Your task to perform on an android device: change text size in settings app Image 0: 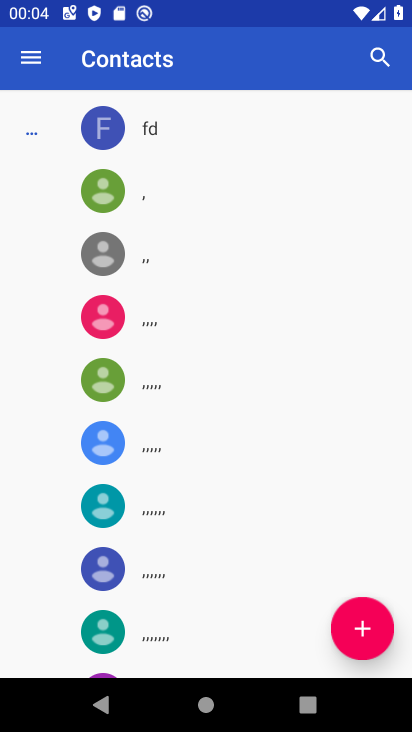
Step 0: drag from (228, 254) to (256, 63)
Your task to perform on an android device: change text size in settings app Image 1: 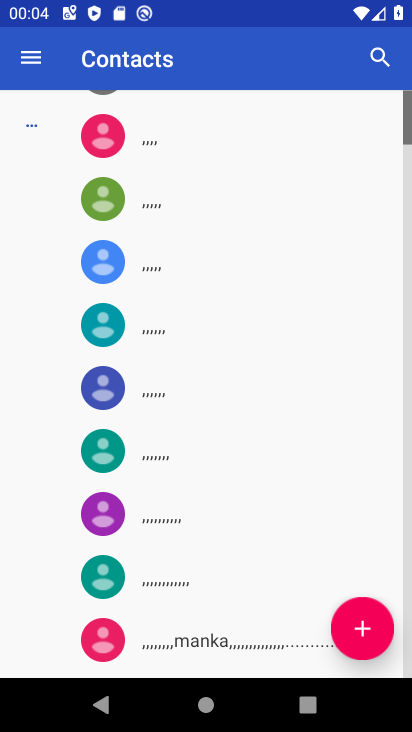
Step 1: drag from (261, 506) to (261, 158)
Your task to perform on an android device: change text size in settings app Image 2: 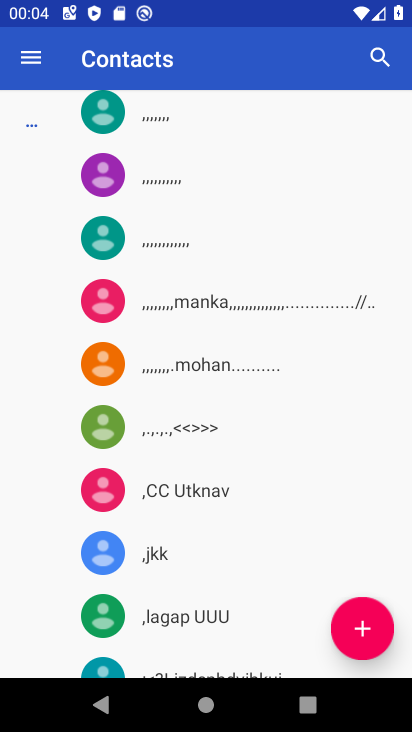
Step 2: press home button
Your task to perform on an android device: change text size in settings app Image 3: 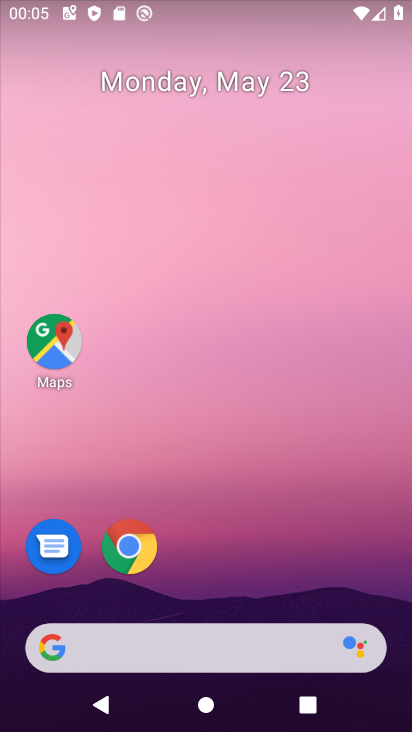
Step 3: drag from (188, 638) to (217, 80)
Your task to perform on an android device: change text size in settings app Image 4: 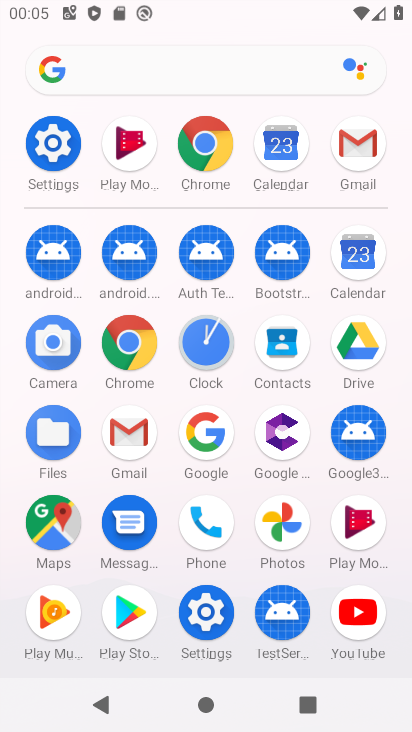
Step 4: click (194, 603)
Your task to perform on an android device: change text size in settings app Image 5: 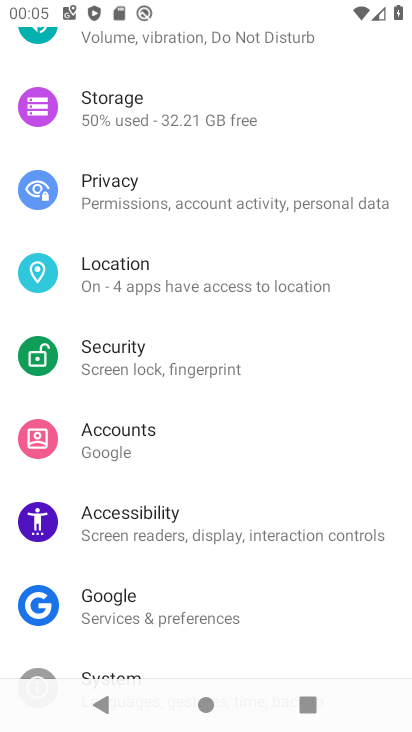
Step 5: drag from (262, 591) to (294, 119)
Your task to perform on an android device: change text size in settings app Image 6: 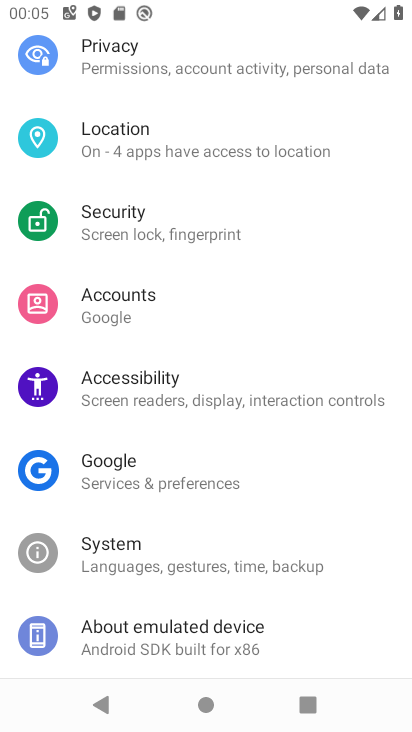
Step 6: drag from (192, 205) to (259, 728)
Your task to perform on an android device: change text size in settings app Image 7: 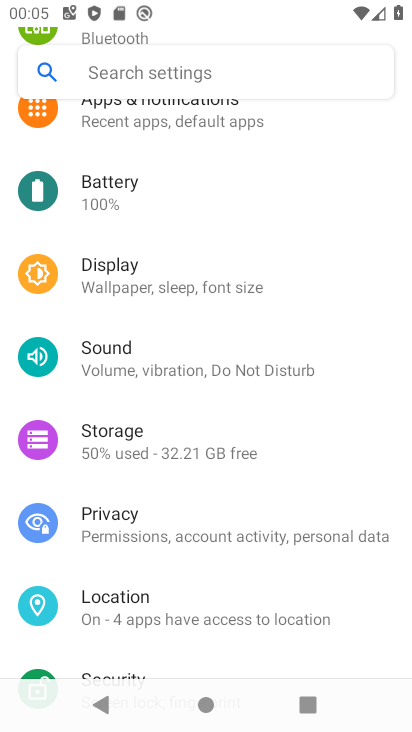
Step 7: drag from (185, 208) to (334, 725)
Your task to perform on an android device: change text size in settings app Image 8: 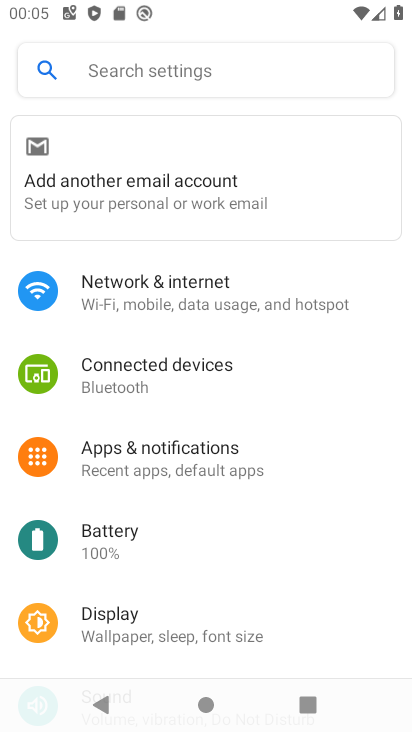
Step 8: drag from (221, 594) to (268, 268)
Your task to perform on an android device: change text size in settings app Image 9: 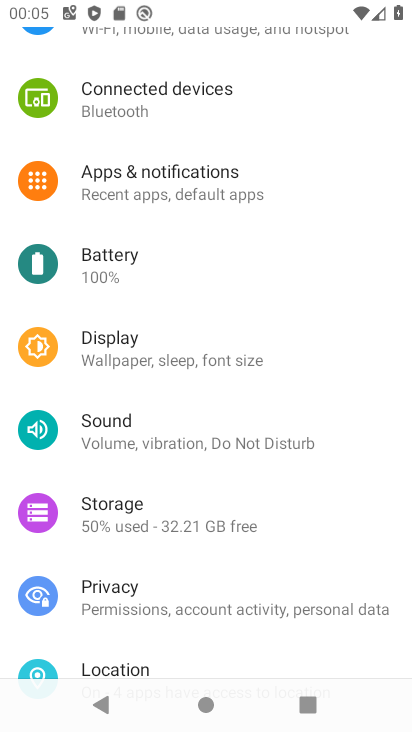
Step 9: click (197, 350)
Your task to perform on an android device: change text size in settings app Image 10: 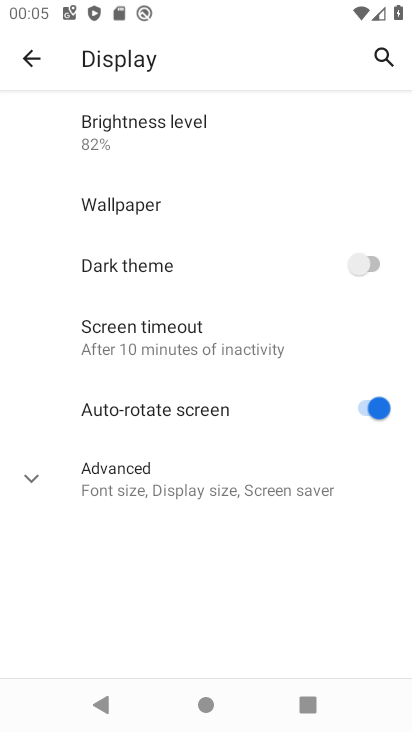
Step 10: click (219, 477)
Your task to perform on an android device: change text size in settings app Image 11: 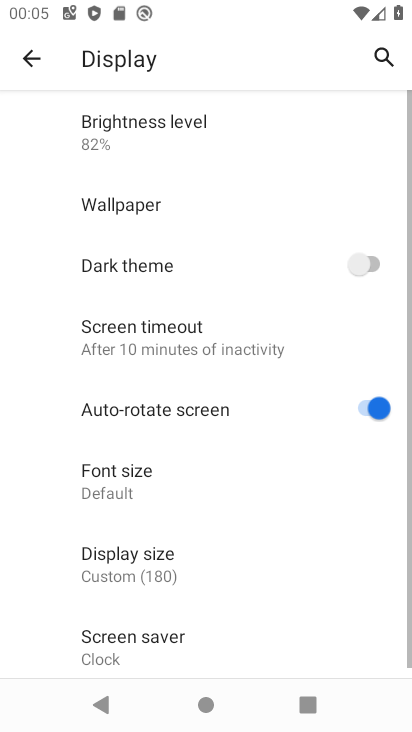
Step 11: drag from (220, 581) to (275, 258)
Your task to perform on an android device: change text size in settings app Image 12: 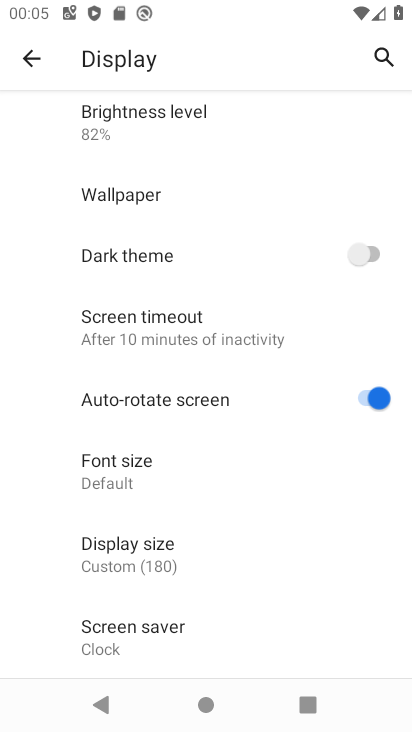
Step 12: click (192, 470)
Your task to perform on an android device: change text size in settings app Image 13: 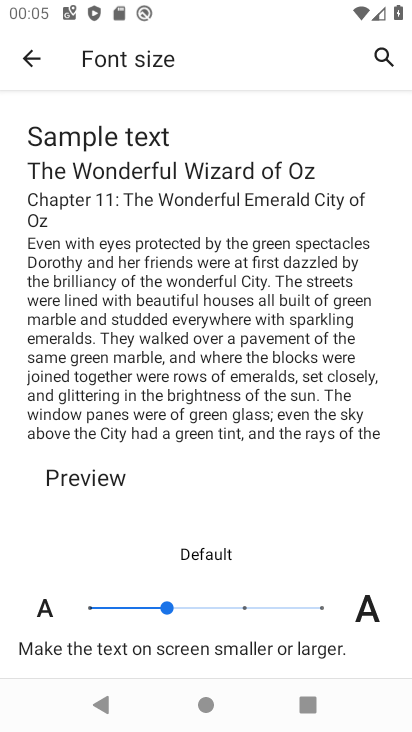
Step 13: drag from (226, 561) to (226, 254)
Your task to perform on an android device: change text size in settings app Image 14: 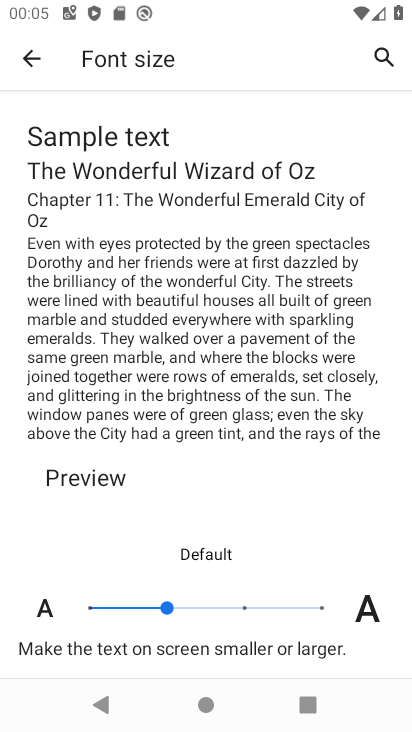
Step 14: drag from (242, 582) to (253, 188)
Your task to perform on an android device: change text size in settings app Image 15: 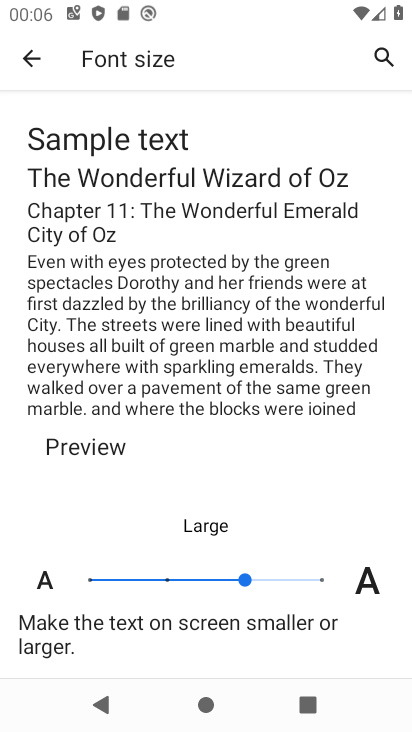
Step 15: click (101, 575)
Your task to perform on an android device: change text size in settings app Image 16: 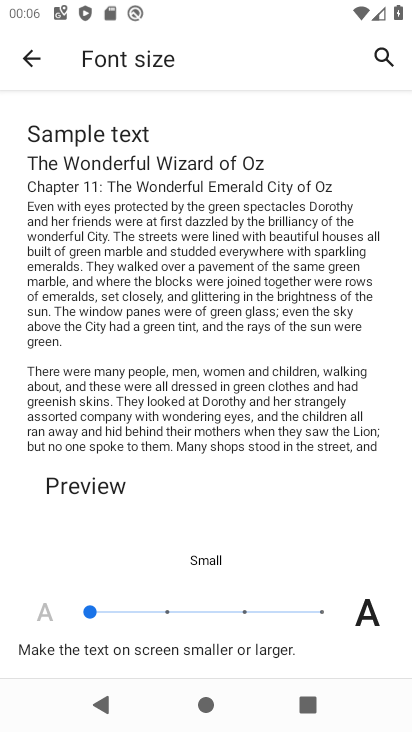
Step 16: task complete